Your task to perform on an android device: Toggle the flashlight Image 0: 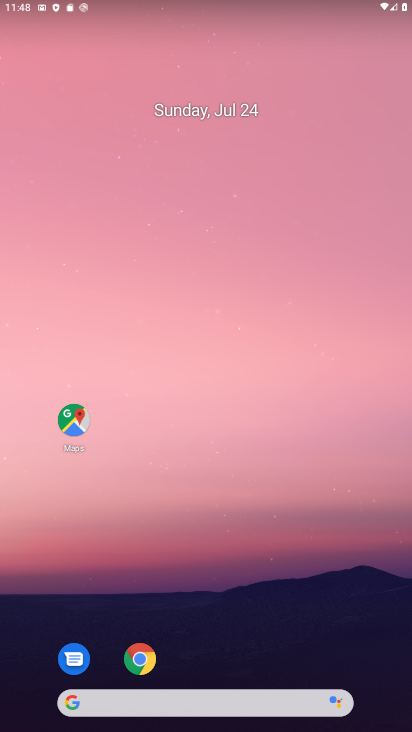
Step 0: drag from (219, 663) to (206, 43)
Your task to perform on an android device: Toggle the flashlight Image 1: 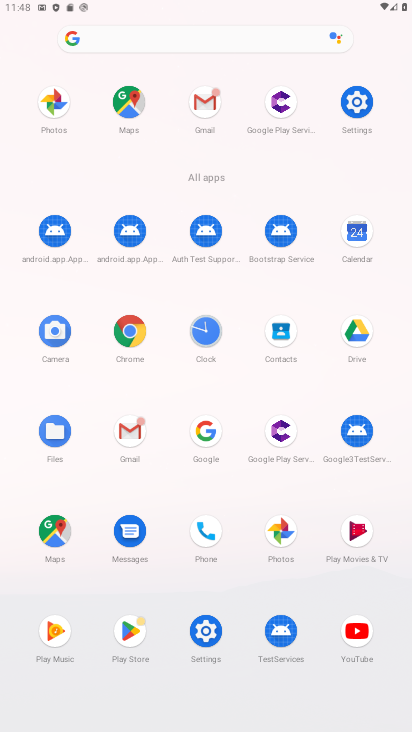
Step 1: click (356, 103)
Your task to perform on an android device: Toggle the flashlight Image 2: 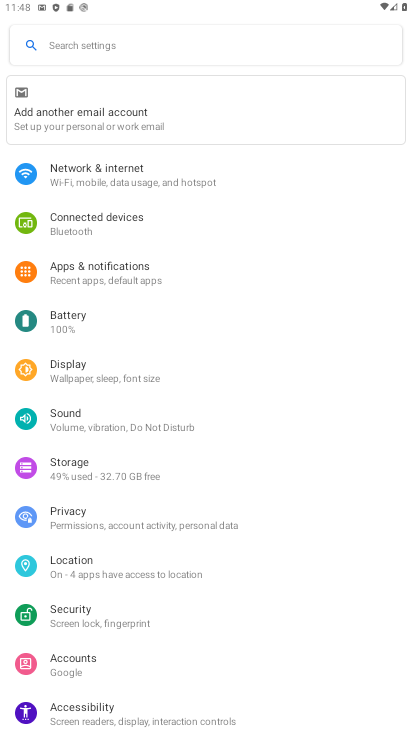
Step 2: click (103, 41)
Your task to perform on an android device: Toggle the flashlight Image 3: 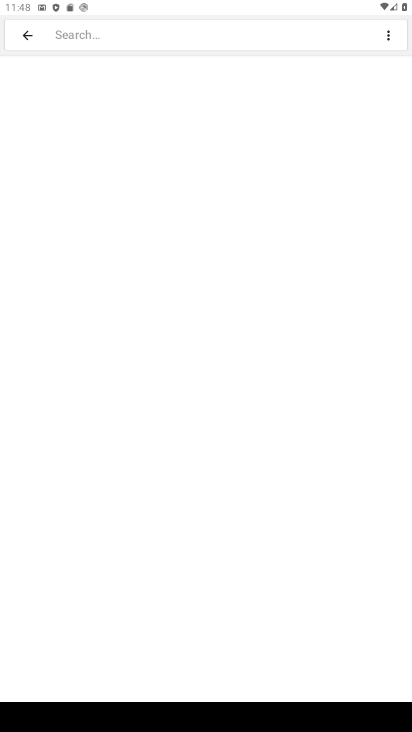
Step 3: type "flashlight"
Your task to perform on an android device: Toggle the flashlight Image 4: 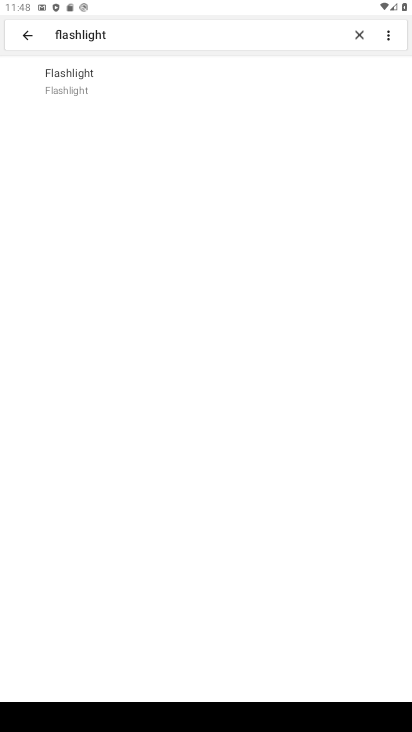
Step 4: click (99, 78)
Your task to perform on an android device: Toggle the flashlight Image 5: 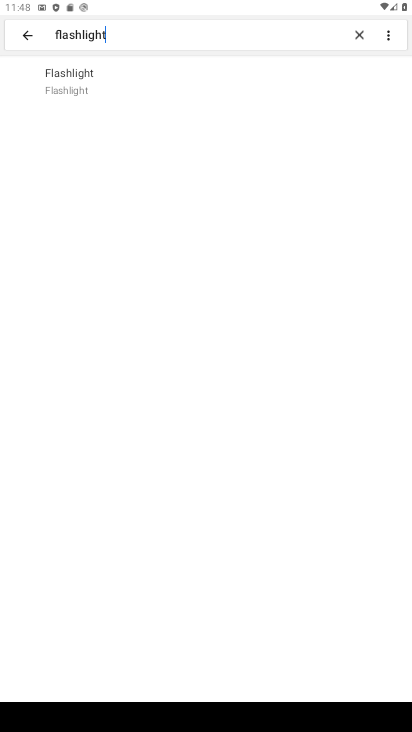
Step 5: task complete